Your task to perform on an android device: Go to Google maps Image 0: 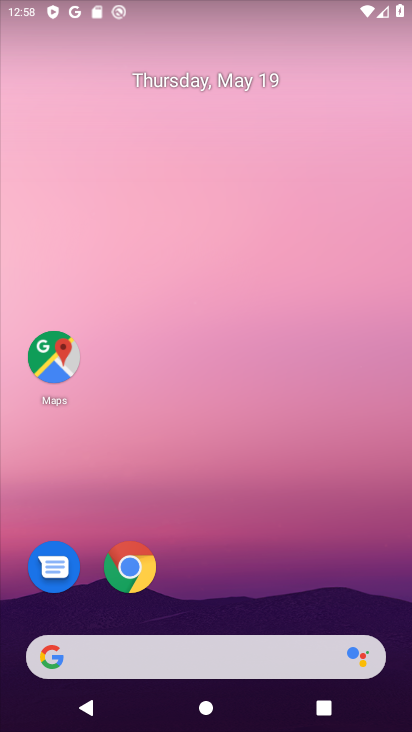
Step 0: click (46, 327)
Your task to perform on an android device: Go to Google maps Image 1: 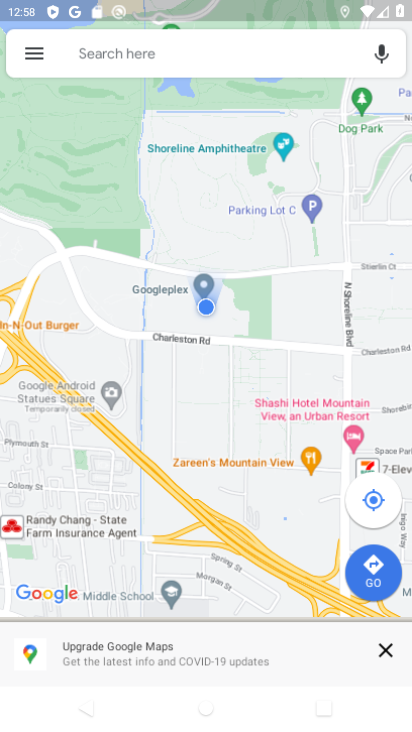
Step 1: task complete